Your task to perform on an android device: turn pop-ups on in chrome Image 0: 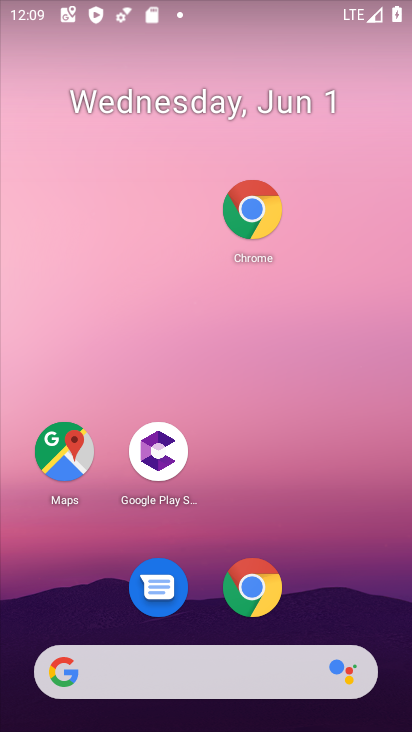
Step 0: click (257, 598)
Your task to perform on an android device: turn pop-ups on in chrome Image 1: 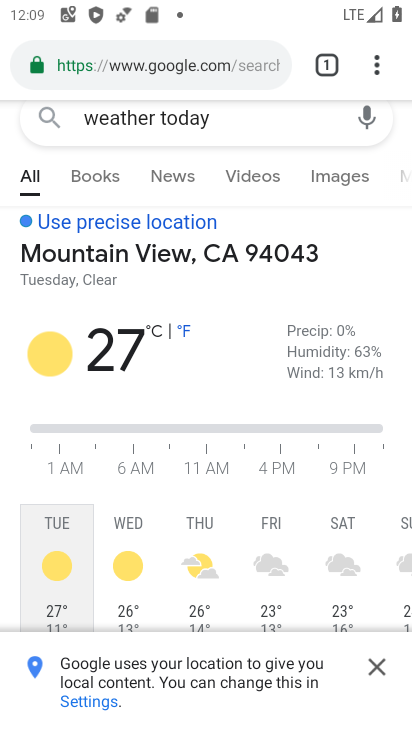
Step 1: click (380, 71)
Your task to perform on an android device: turn pop-ups on in chrome Image 2: 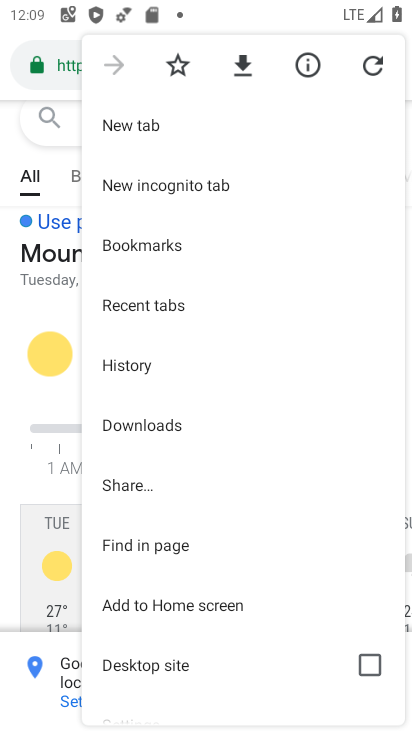
Step 2: drag from (243, 566) to (223, 384)
Your task to perform on an android device: turn pop-ups on in chrome Image 3: 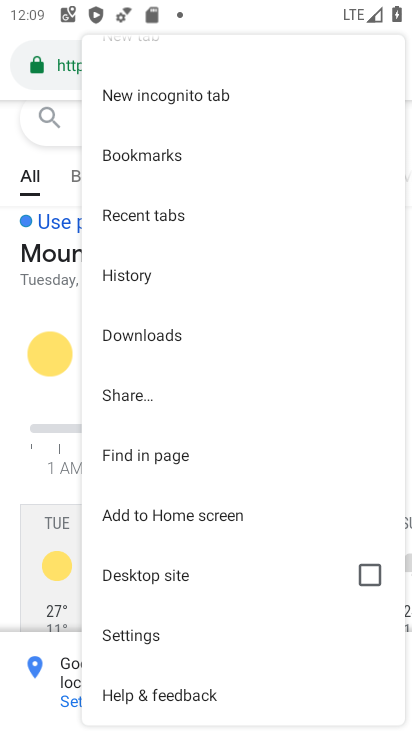
Step 3: click (161, 631)
Your task to perform on an android device: turn pop-ups on in chrome Image 4: 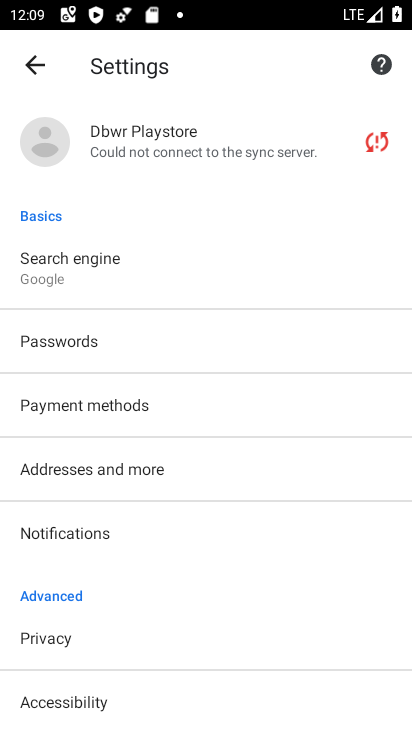
Step 4: drag from (180, 609) to (178, 391)
Your task to perform on an android device: turn pop-ups on in chrome Image 5: 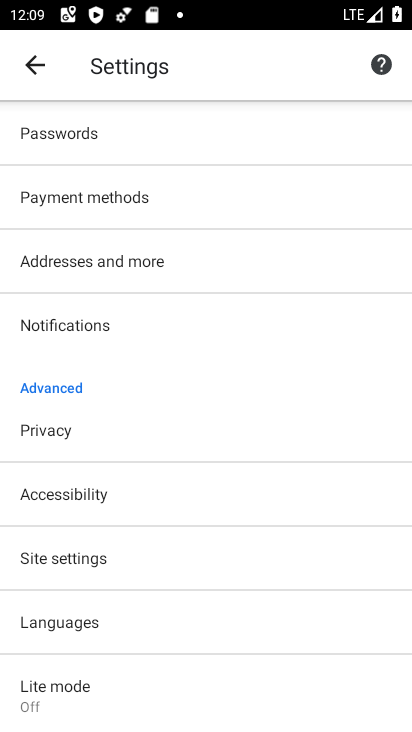
Step 5: click (66, 556)
Your task to perform on an android device: turn pop-ups on in chrome Image 6: 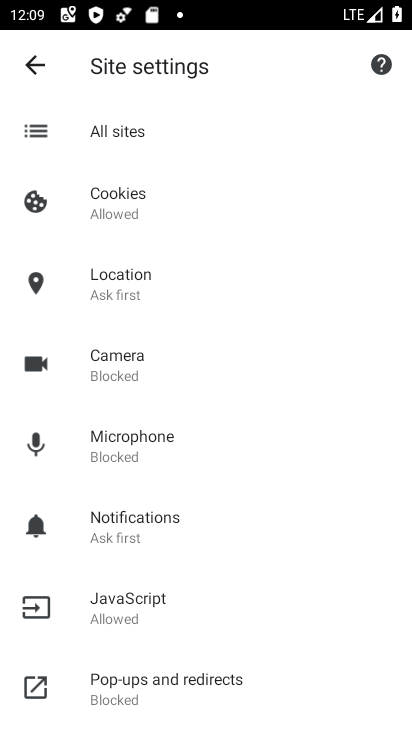
Step 6: click (137, 682)
Your task to perform on an android device: turn pop-ups on in chrome Image 7: 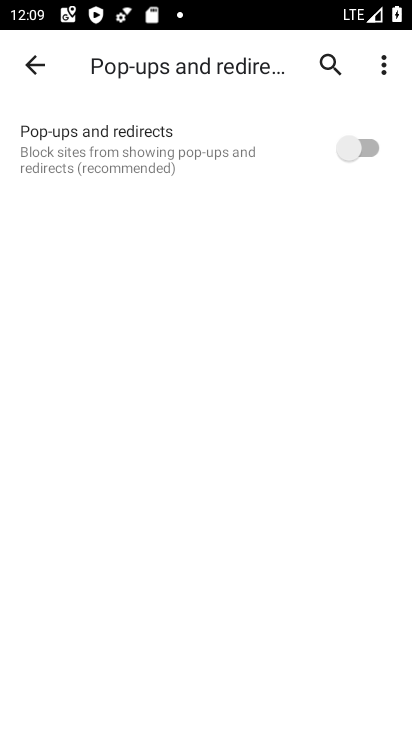
Step 7: click (361, 150)
Your task to perform on an android device: turn pop-ups on in chrome Image 8: 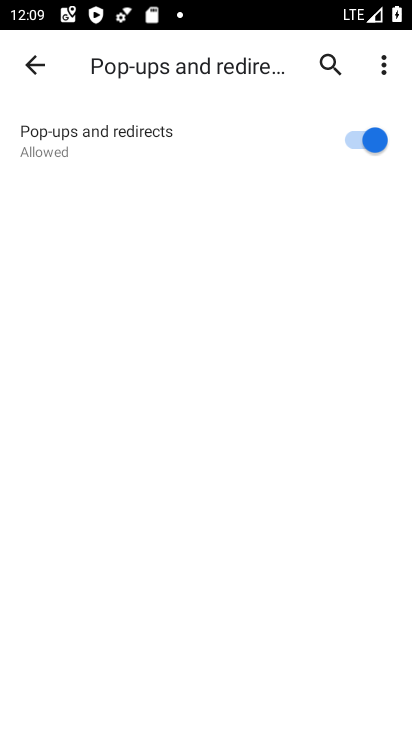
Step 8: task complete